Your task to perform on an android device: turn on airplane mode Image 0: 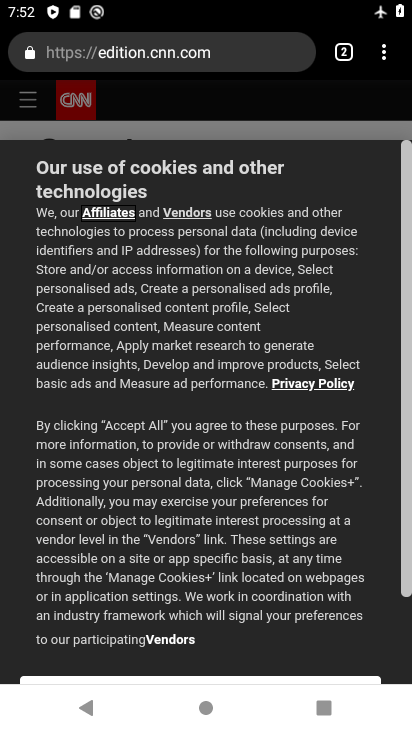
Step 0: press home button
Your task to perform on an android device: turn on airplane mode Image 1: 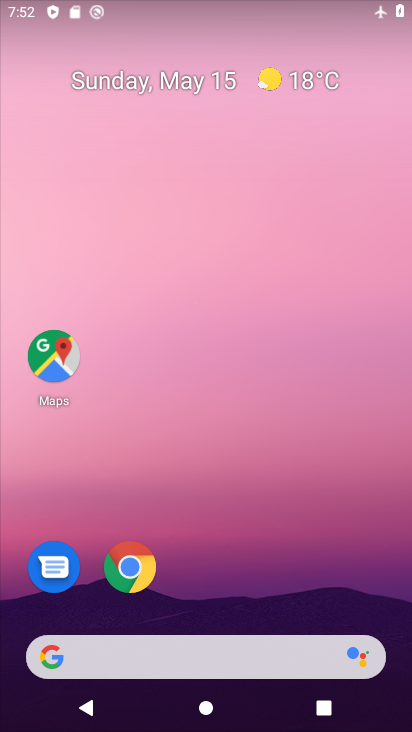
Step 1: drag from (251, 709) to (363, 19)
Your task to perform on an android device: turn on airplane mode Image 2: 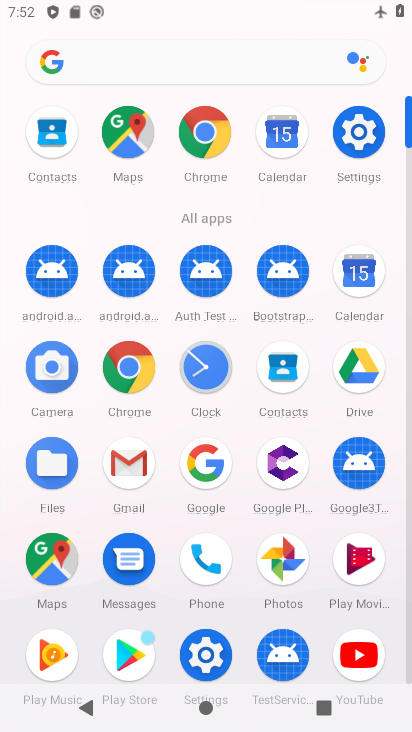
Step 2: click (362, 124)
Your task to perform on an android device: turn on airplane mode Image 3: 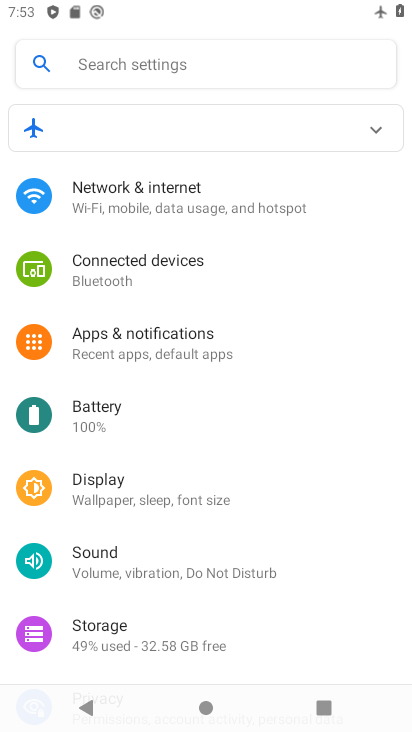
Step 3: click (293, 206)
Your task to perform on an android device: turn on airplane mode Image 4: 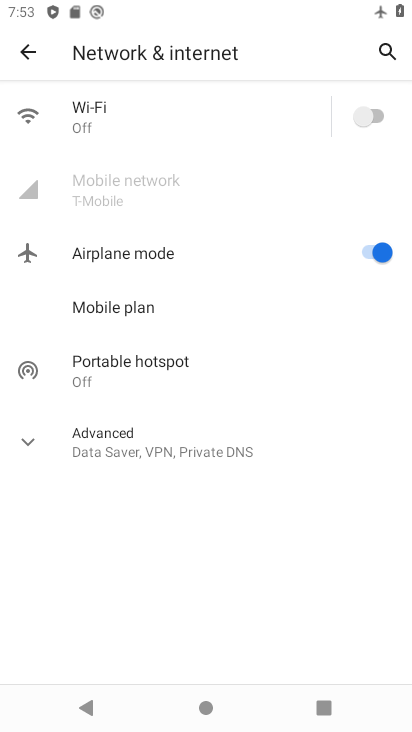
Step 4: task complete